Your task to perform on an android device: Go to location settings Image 0: 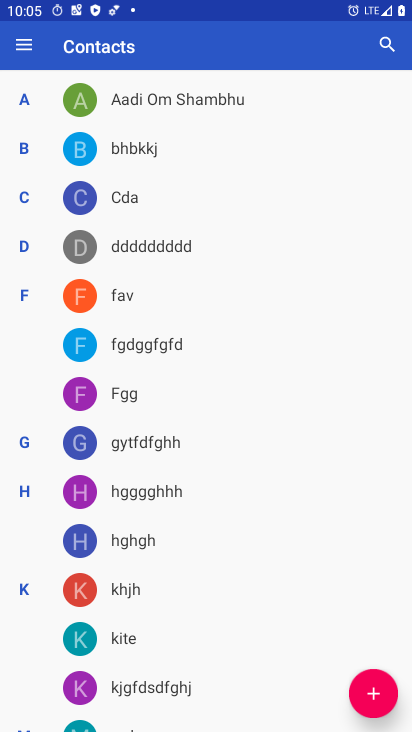
Step 0: press home button
Your task to perform on an android device: Go to location settings Image 1: 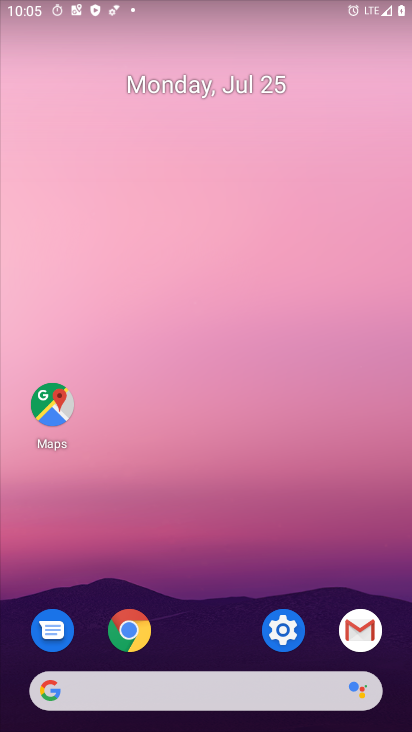
Step 1: click (309, 626)
Your task to perform on an android device: Go to location settings Image 2: 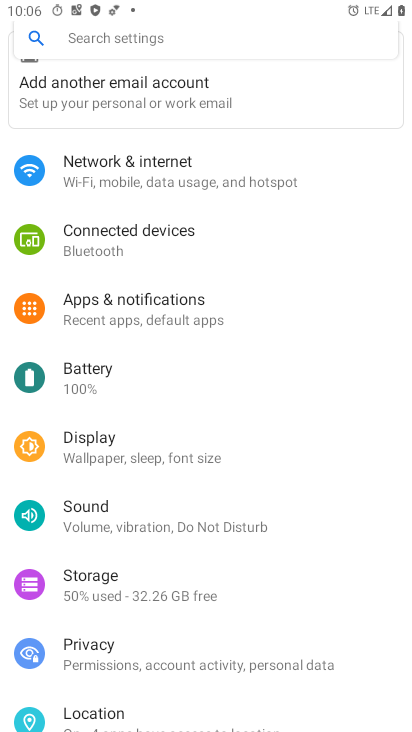
Step 2: click (109, 706)
Your task to perform on an android device: Go to location settings Image 3: 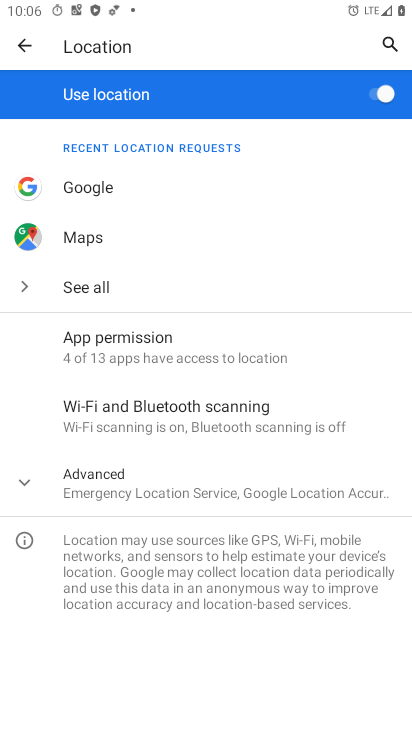
Step 3: task complete